Your task to perform on an android device: toggle notifications settings in the gmail app Image 0: 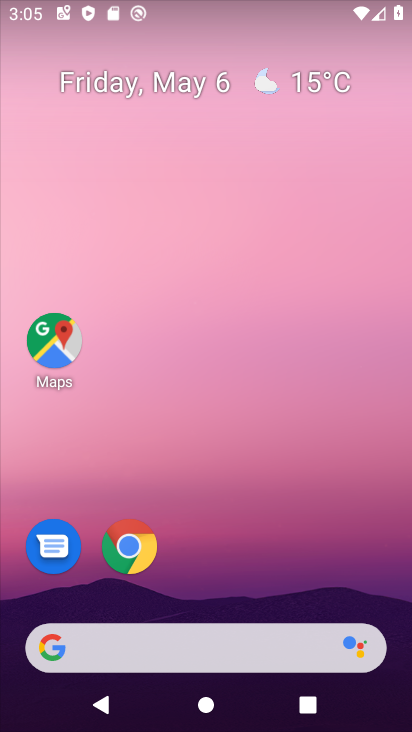
Step 0: drag from (208, 554) to (194, 189)
Your task to perform on an android device: toggle notifications settings in the gmail app Image 1: 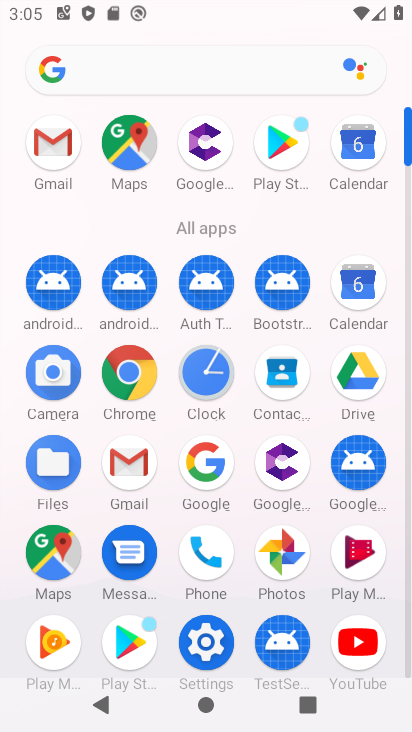
Step 1: click (63, 148)
Your task to perform on an android device: toggle notifications settings in the gmail app Image 2: 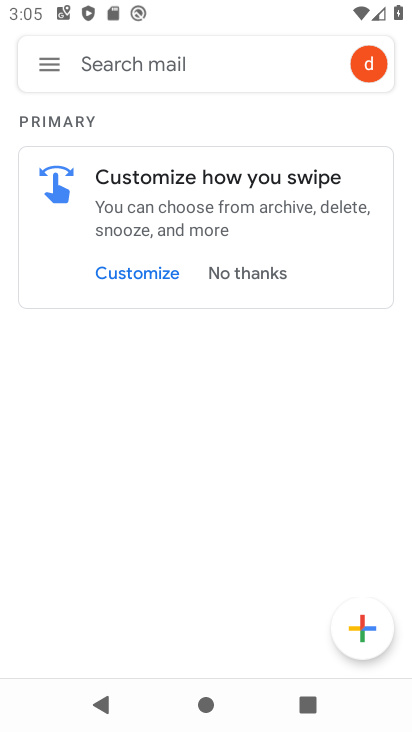
Step 2: click (57, 61)
Your task to perform on an android device: toggle notifications settings in the gmail app Image 3: 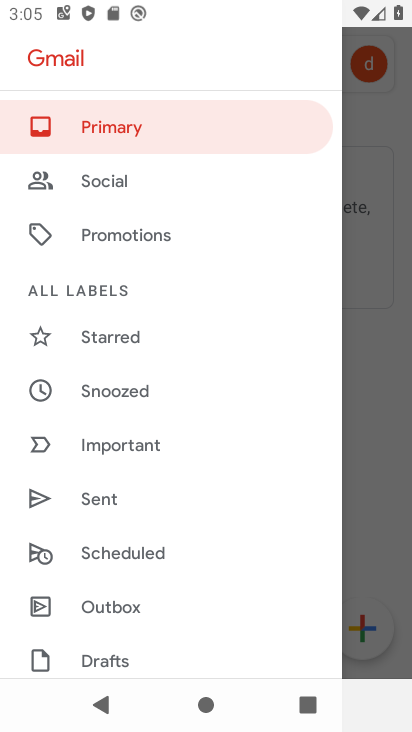
Step 3: drag from (210, 641) to (247, 158)
Your task to perform on an android device: toggle notifications settings in the gmail app Image 4: 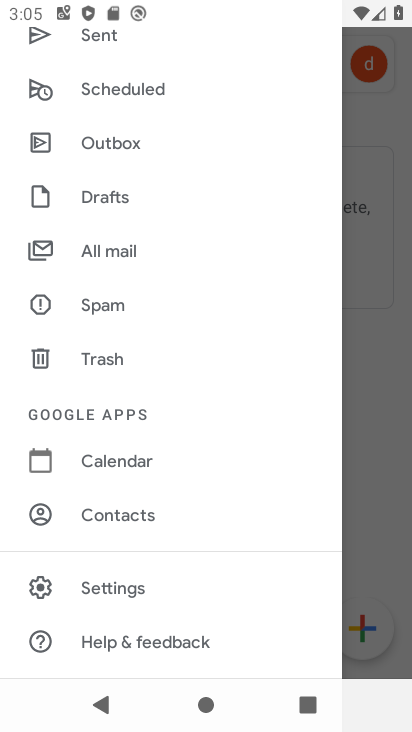
Step 4: click (225, 590)
Your task to perform on an android device: toggle notifications settings in the gmail app Image 5: 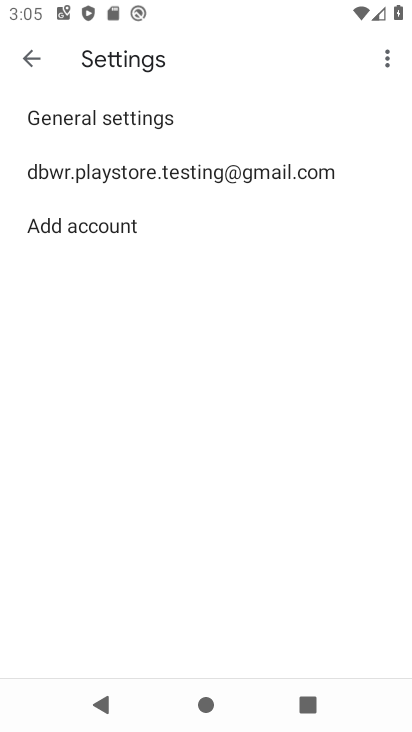
Step 5: click (256, 160)
Your task to perform on an android device: toggle notifications settings in the gmail app Image 6: 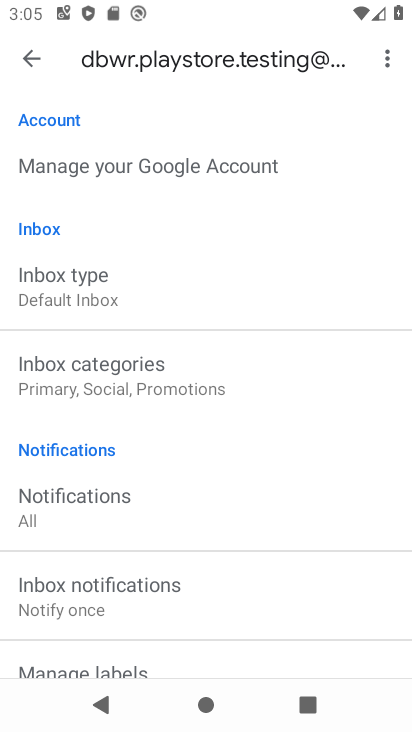
Step 6: drag from (235, 563) to (220, 209)
Your task to perform on an android device: toggle notifications settings in the gmail app Image 7: 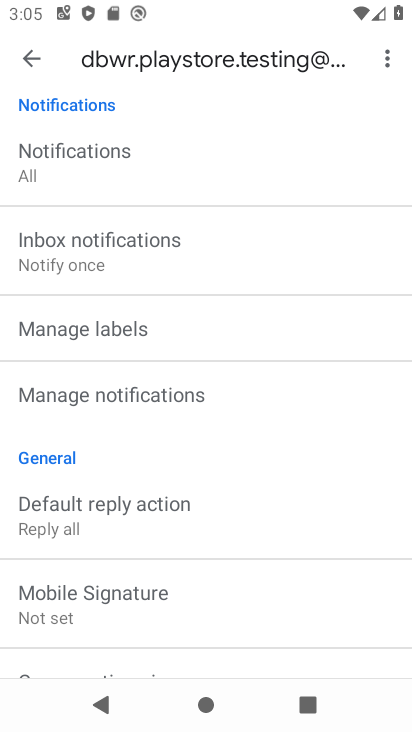
Step 7: click (228, 406)
Your task to perform on an android device: toggle notifications settings in the gmail app Image 8: 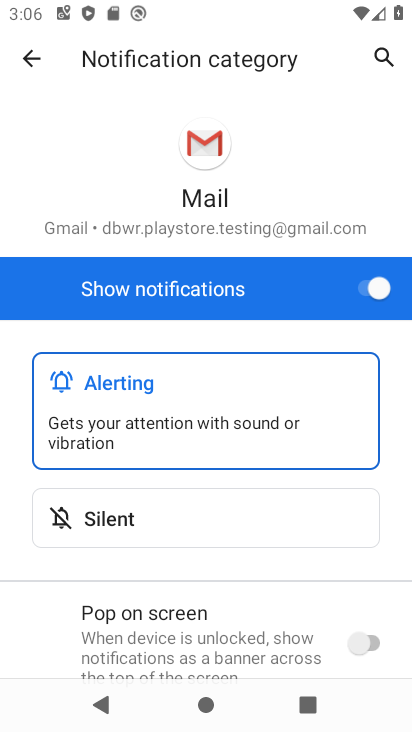
Step 8: drag from (396, 485) to (372, 187)
Your task to perform on an android device: toggle notifications settings in the gmail app Image 9: 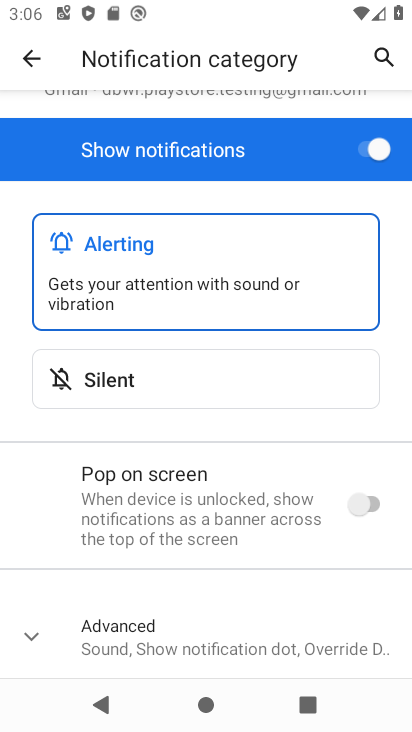
Step 9: click (339, 404)
Your task to perform on an android device: toggle notifications settings in the gmail app Image 10: 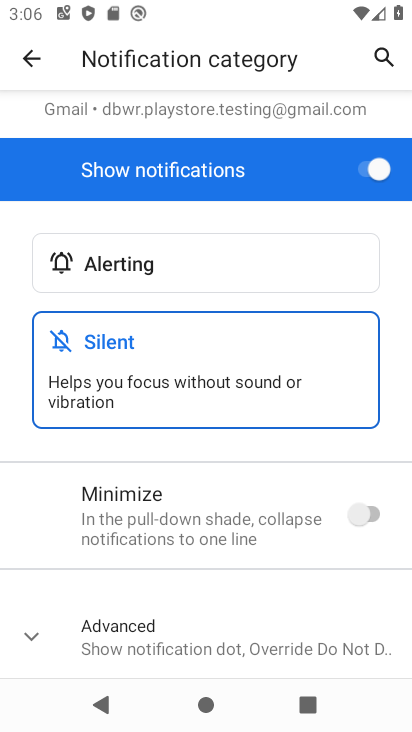
Step 10: click (371, 518)
Your task to perform on an android device: toggle notifications settings in the gmail app Image 11: 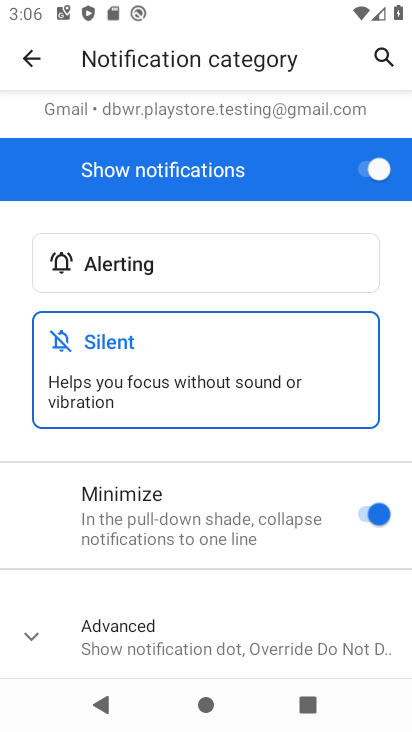
Step 11: task complete